Your task to perform on an android device: Open Android settings Image 0: 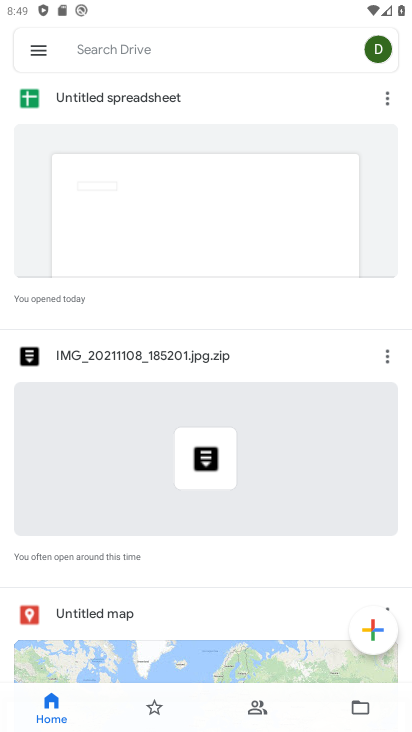
Step 0: press home button
Your task to perform on an android device: Open Android settings Image 1: 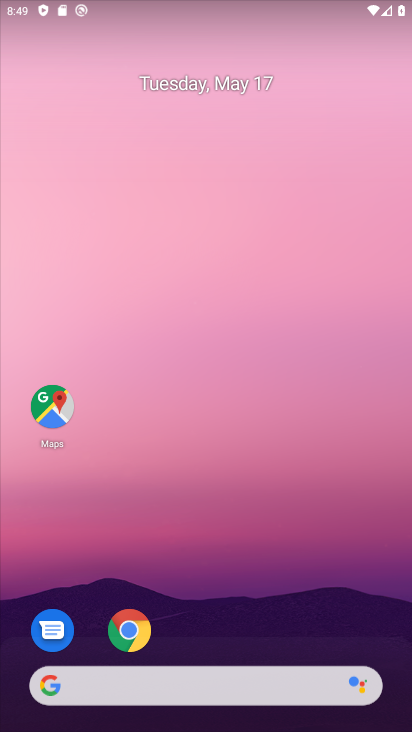
Step 1: drag from (199, 607) to (97, 134)
Your task to perform on an android device: Open Android settings Image 2: 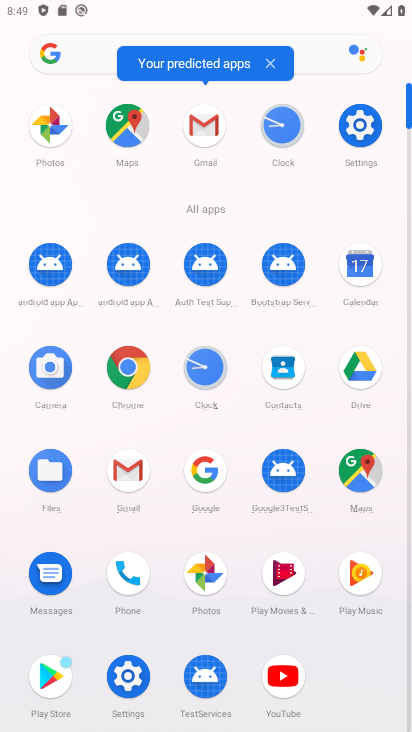
Step 2: click (370, 127)
Your task to perform on an android device: Open Android settings Image 3: 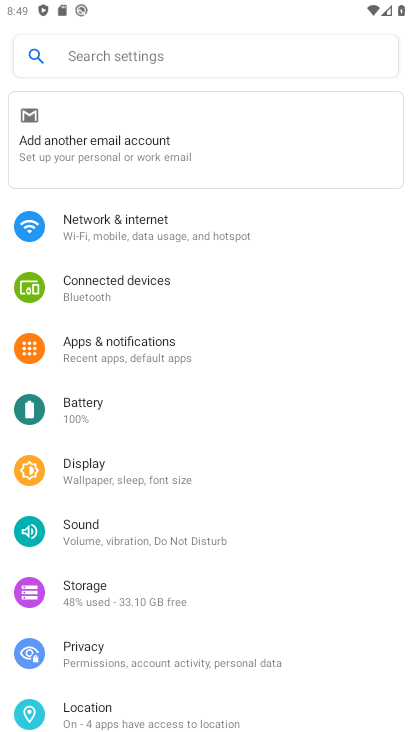
Step 3: drag from (199, 676) to (183, 214)
Your task to perform on an android device: Open Android settings Image 4: 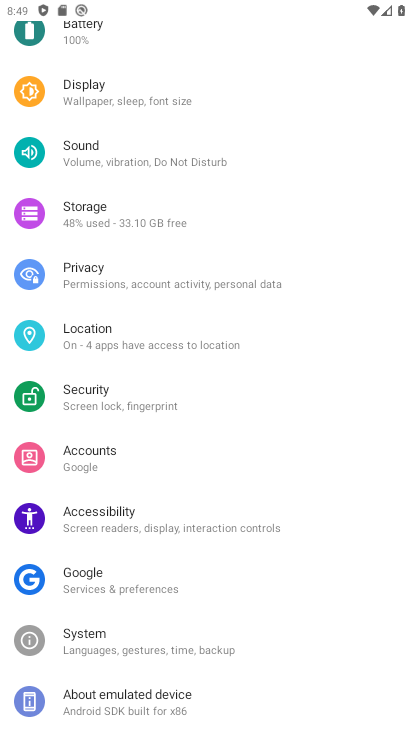
Step 4: click (124, 696)
Your task to perform on an android device: Open Android settings Image 5: 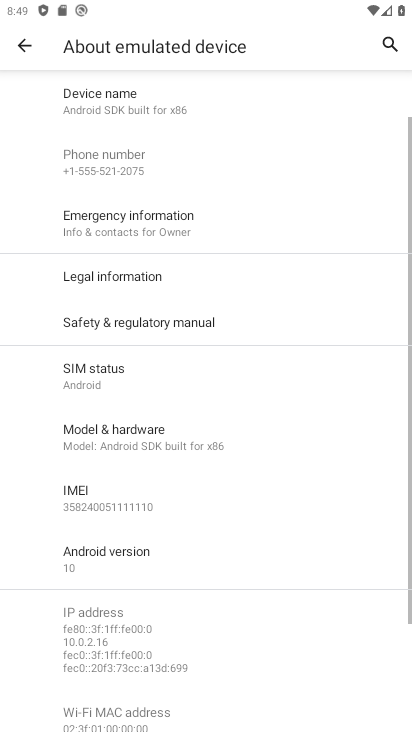
Step 5: click (110, 557)
Your task to perform on an android device: Open Android settings Image 6: 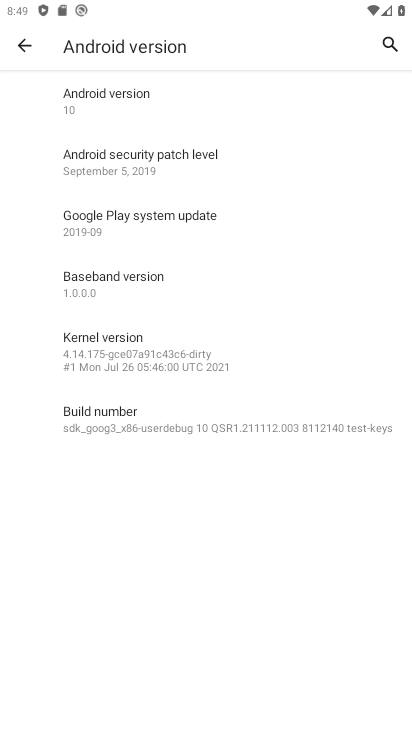
Step 6: task complete